Your task to perform on an android device: move an email to a new category in the gmail app Image 0: 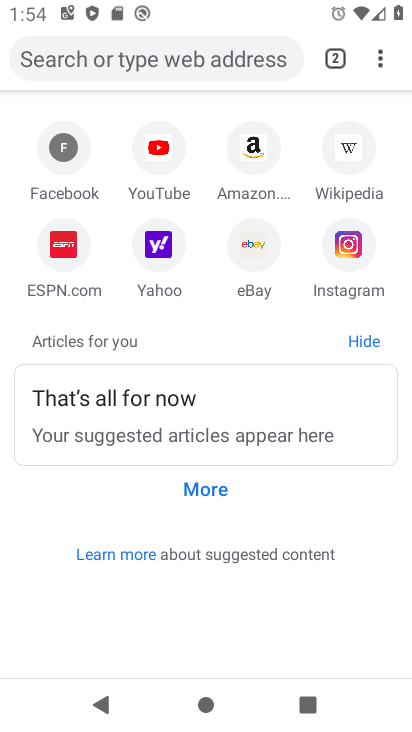
Step 0: press home button
Your task to perform on an android device: move an email to a new category in the gmail app Image 1: 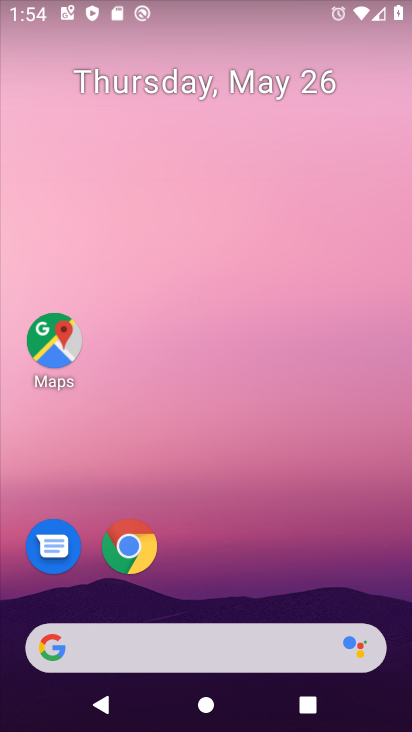
Step 1: drag from (393, 626) to (313, 87)
Your task to perform on an android device: move an email to a new category in the gmail app Image 2: 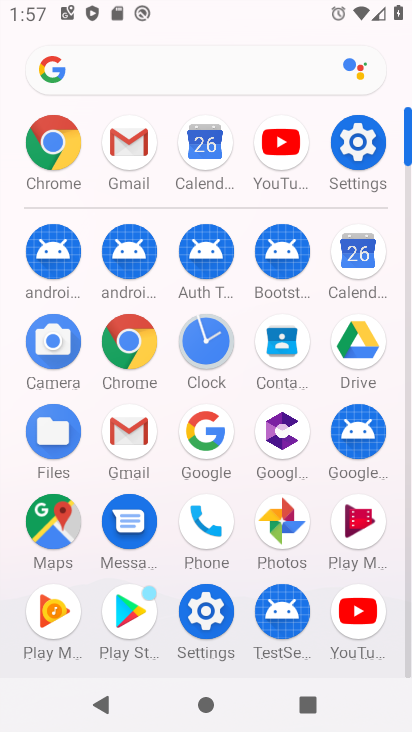
Step 2: click (143, 453)
Your task to perform on an android device: move an email to a new category in the gmail app Image 3: 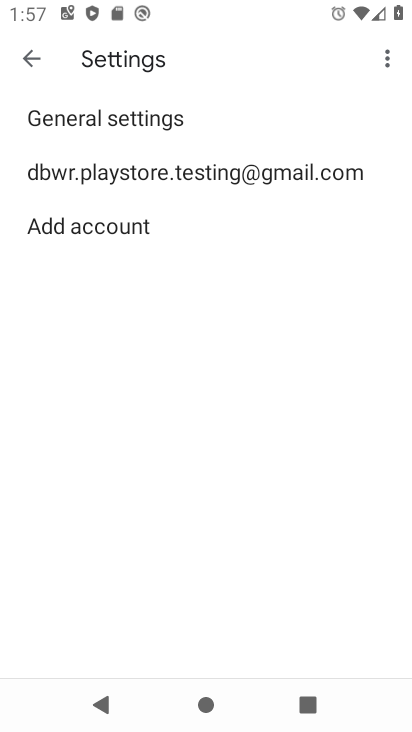
Step 3: task complete